Your task to perform on an android device: delete the emails in spam in the gmail app Image 0: 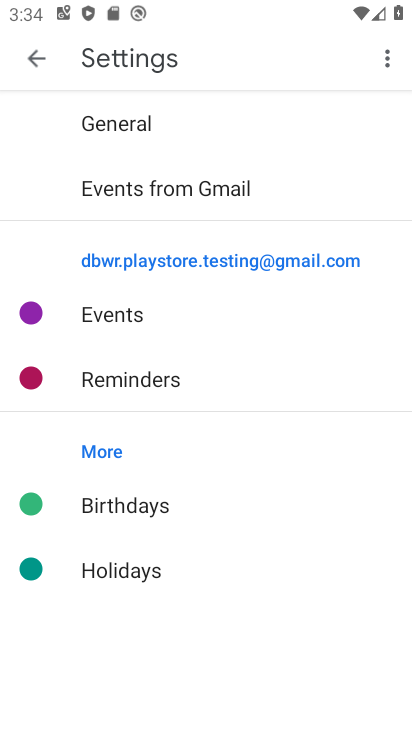
Step 0: press home button
Your task to perform on an android device: delete the emails in spam in the gmail app Image 1: 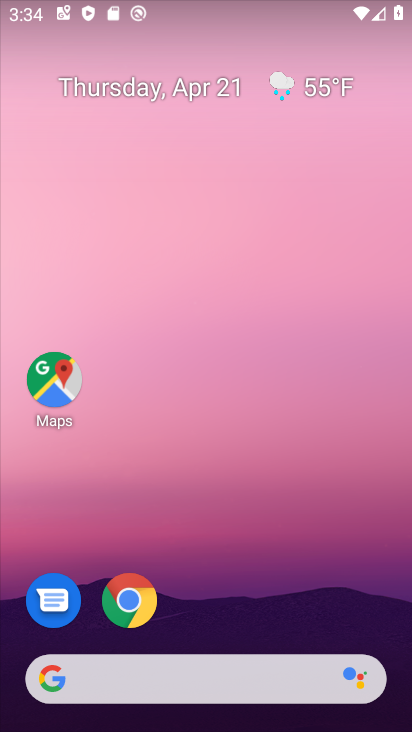
Step 1: drag from (184, 678) to (281, 160)
Your task to perform on an android device: delete the emails in spam in the gmail app Image 2: 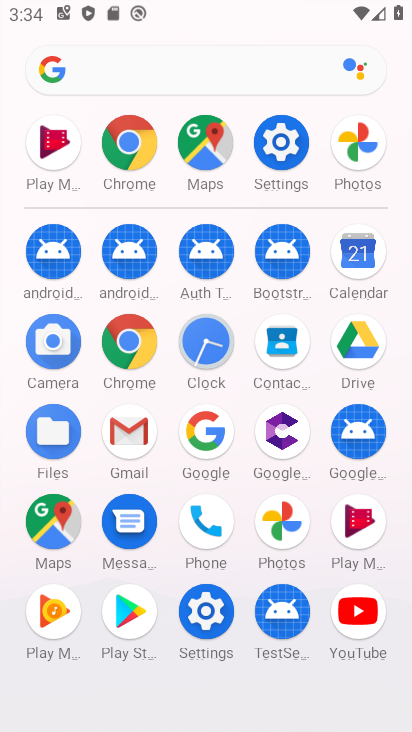
Step 2: click (135, 445)
Your task to perform on an android device: delete the emails in spam in the gmail app Image 3: 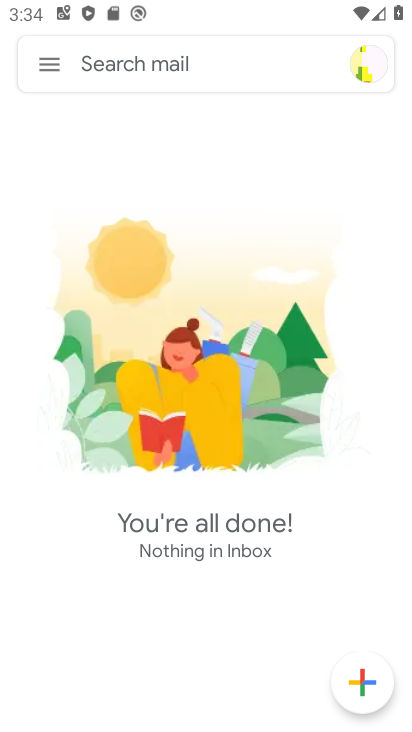
Step 3: click (47, 61)
Your task to perform on an android device: delete the emails in spam in the gmail app Image 4: 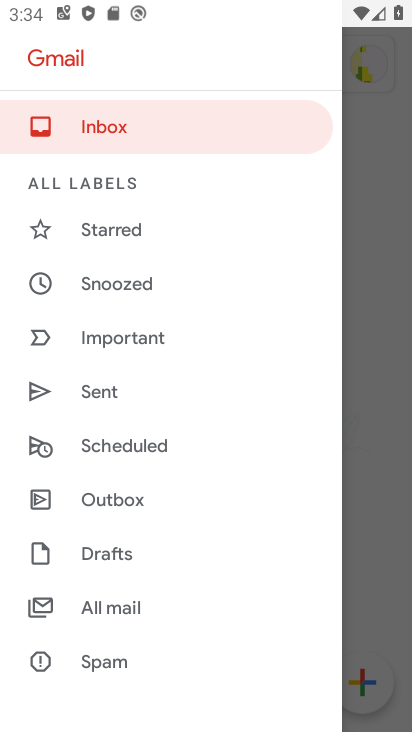
Step 4: click (112, 660)
Your task to perform on an android device: delete the emails in spam in the gmail app Image 5: 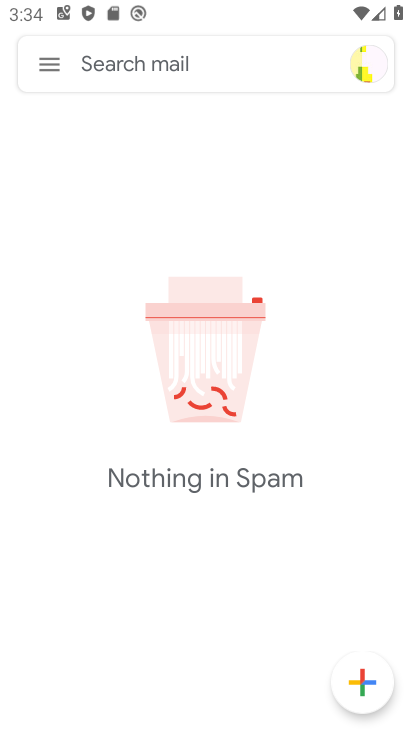
Step 5: task complete